Your task to perform on an android device: choose inbox layout in the gmail app Image 0: 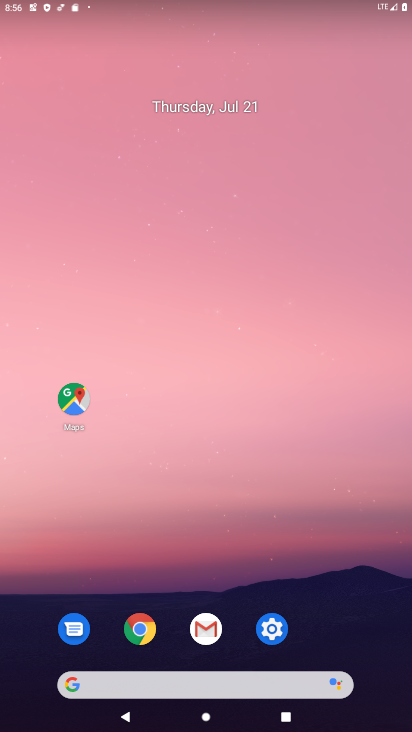
Step 0: click (199, 633)
Your task to perform on an android device: choose inbox layout in the gmail app Image 1: 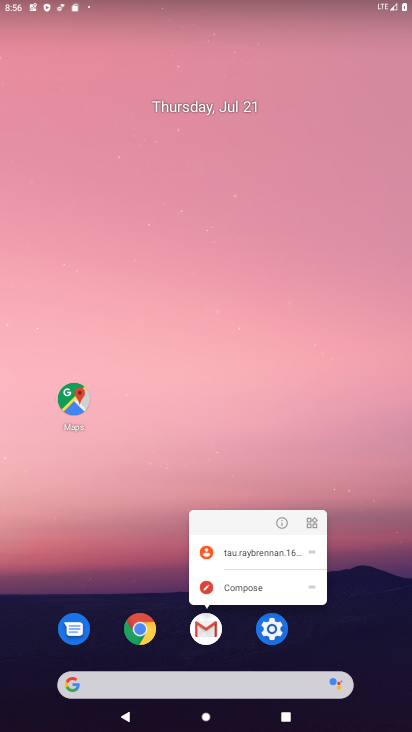
Step 1: click (204, 636)
Your task to perform on an android device: choose inbox layout in the gmail app Image 2: 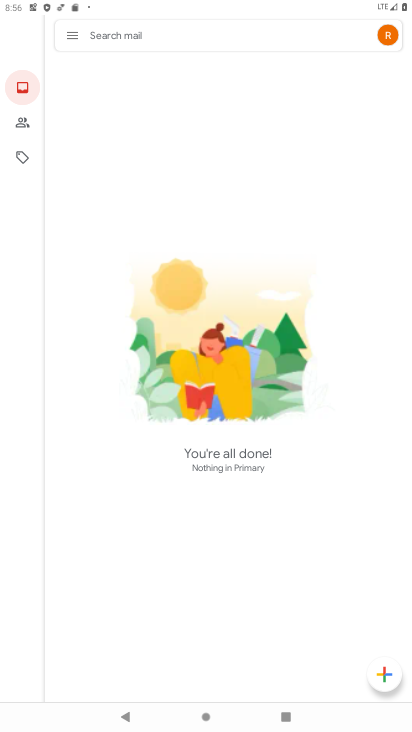
Step 2: click (66, 33)
Your task to perform on an android device: choose inbox layout in the gmail app Image 3: 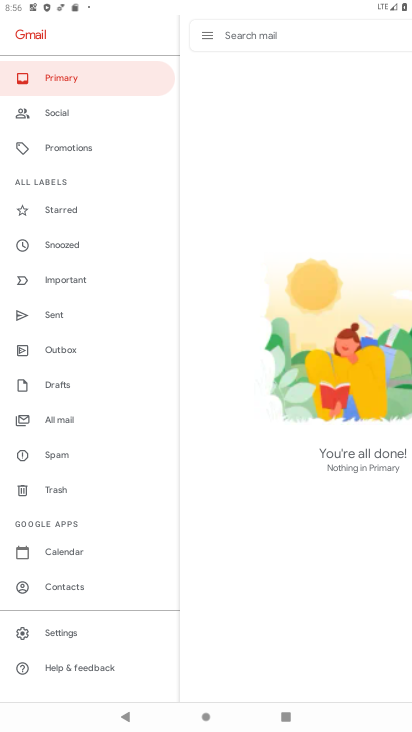
Step 3: click (59, 634)
Your task to perform on an android device: choose inbox layout in the gmail app Image 4: 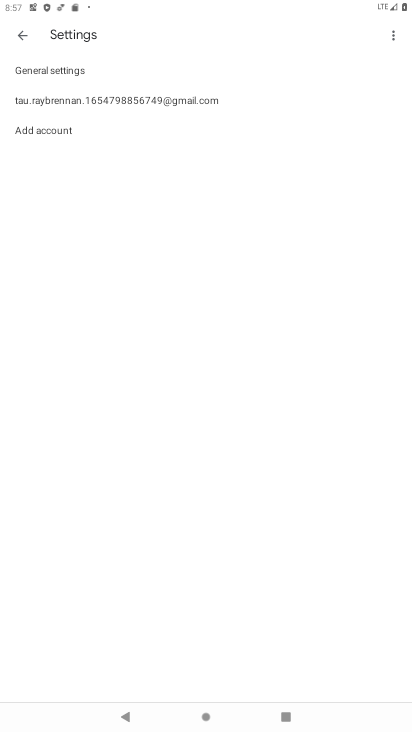
Step 4: click (79, 102)
Your task to perform on an android device: choose inbox layout in the gmail app Image 5: 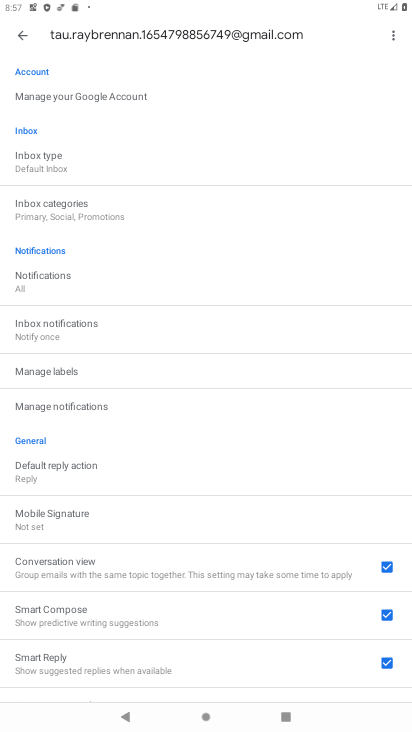
Step 5: task complete